Your task to perform on an android device: turn off data saver in the chrome app Image 0: 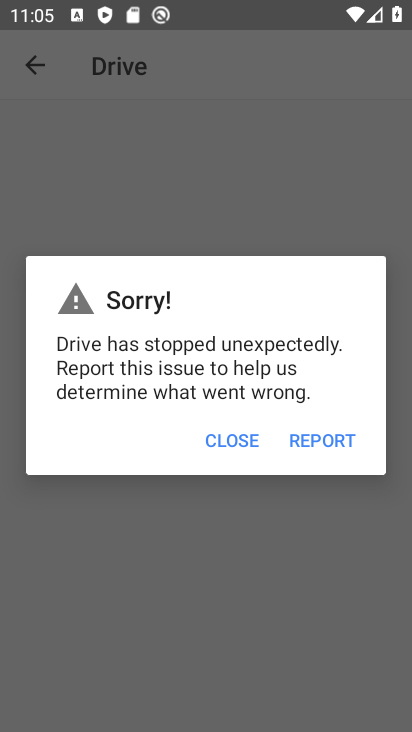
Step 0: press home button
Your task to perform on an android device: turn off data saver in the chrome app Image 1: 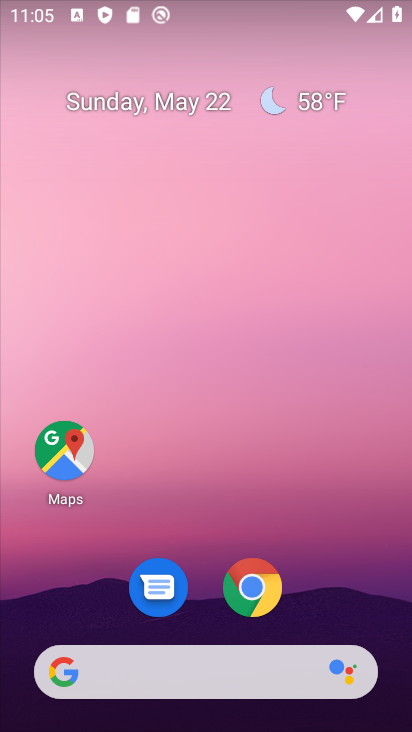
Step 1: click (249, 583)
Your task to perform on an android device: turn off data saver in the chrome app Image 2: 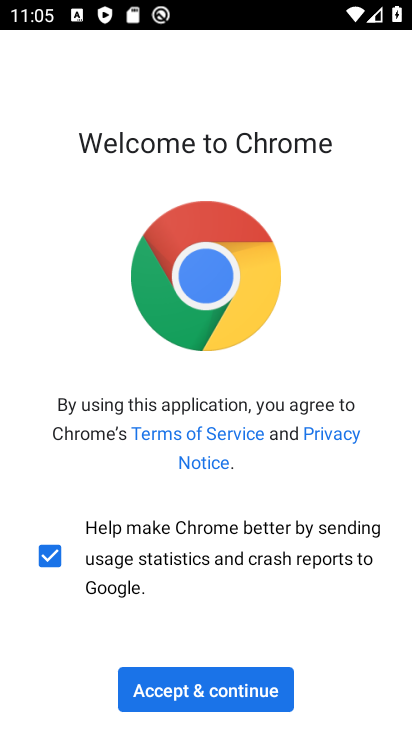
Step 2: click (248, 681)
Your task to perform on an android device: turn off data saver in the chrome app Image 3: 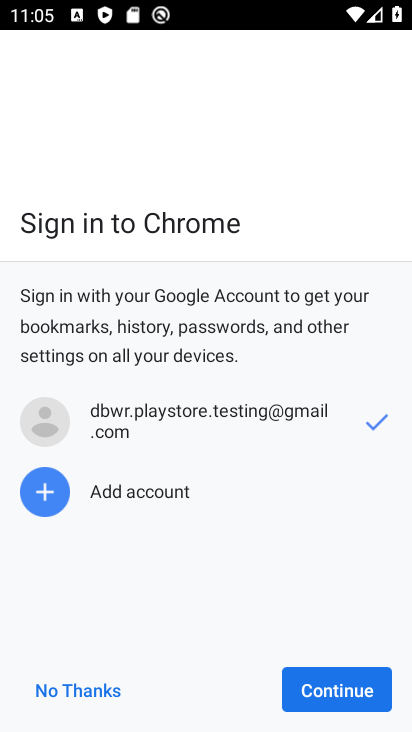
Step 3: click (325, 687)
Your task to perform on an android device: turn off data saver in the chrome app Image 4: 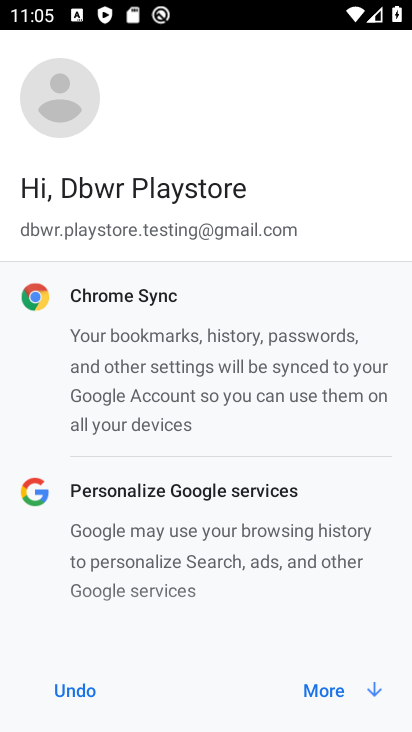
Step 4: click (325, 687)
Your task to perform on an android device: turn off data saver in the chrome app Image 5: 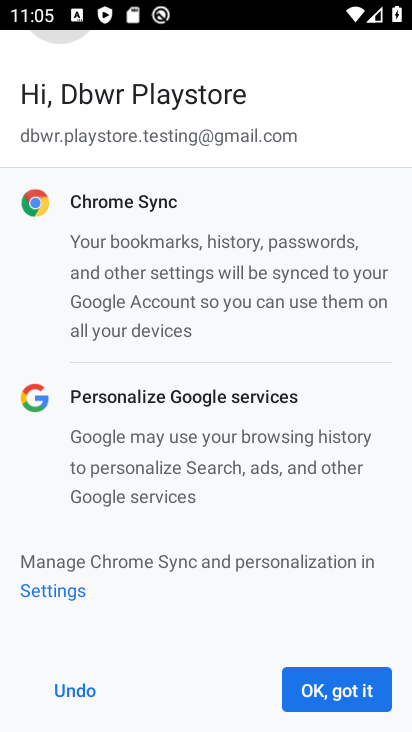
Step 5: click (325, 687)
Your task to perform on an android device: turn off data saver in the chrome app Image 6: 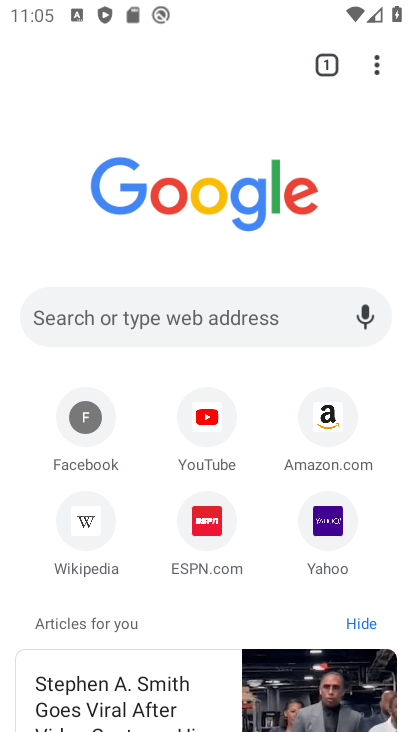
Step 6: click (373, 63)
Your task to perform on an android device: turn off data saver in the chrome app Image 7: 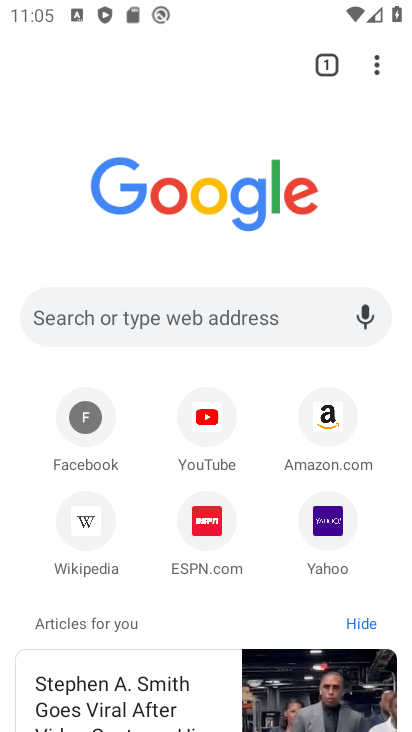
Step 7: click (373, 64)
Your task to perform on an android device: turn off data saver in the chrome app Image 8: 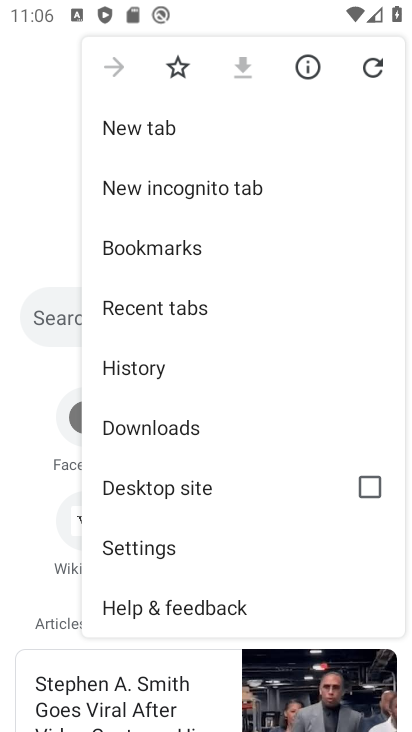
Step 8: click (149, 540)
Your task to perform on an android device: turn off data saver in the chrome app Image 9: 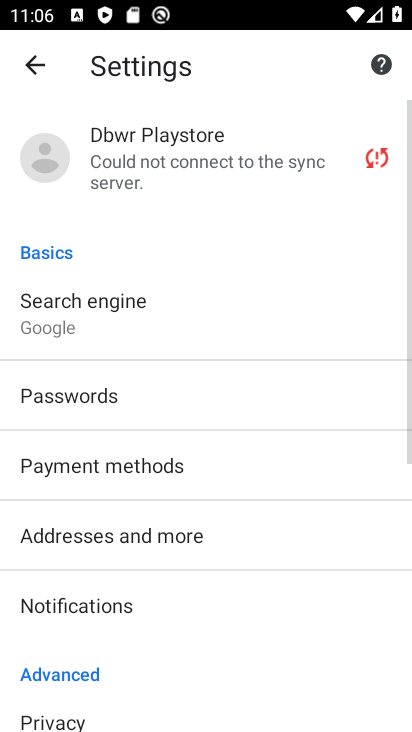
Step 9: drag from (242, 583) to (307, 76)
Your task to perform on an android device: turn off data saver in the chrome app Image 10: 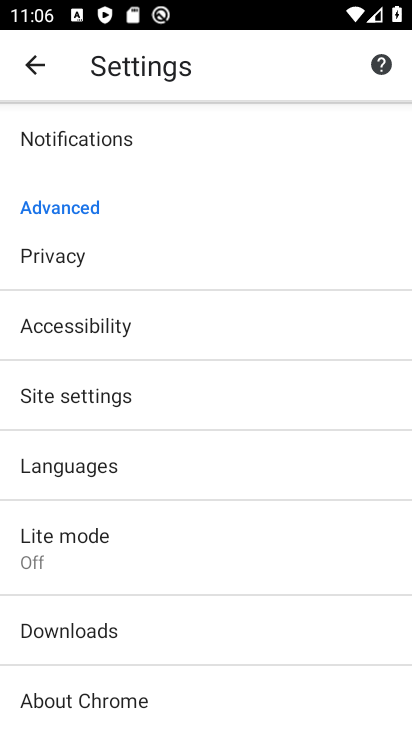
Step 10: click (140, 558)
Your task to perform on an android device: turn off data saver in the chrome app Image 11: 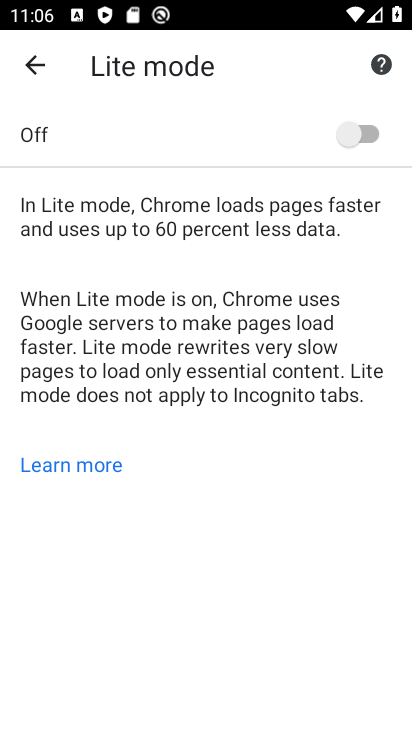
Step 11: task complete